Your task to perform on an android device: turn off airplane mode Image 0: 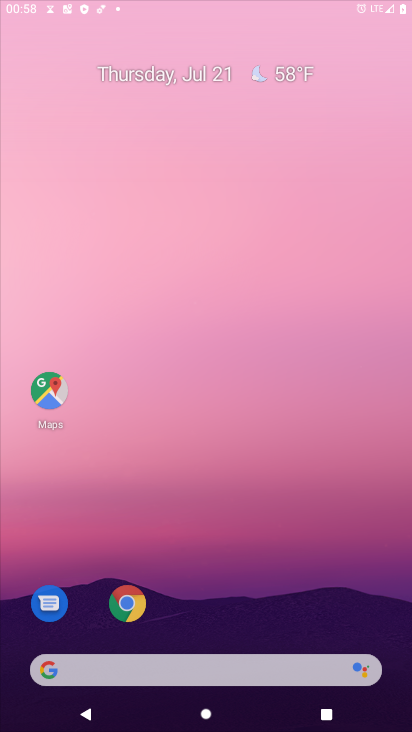
Step 0: press home button
Your task to perform on an android device: turn off airplane mode Image 1: 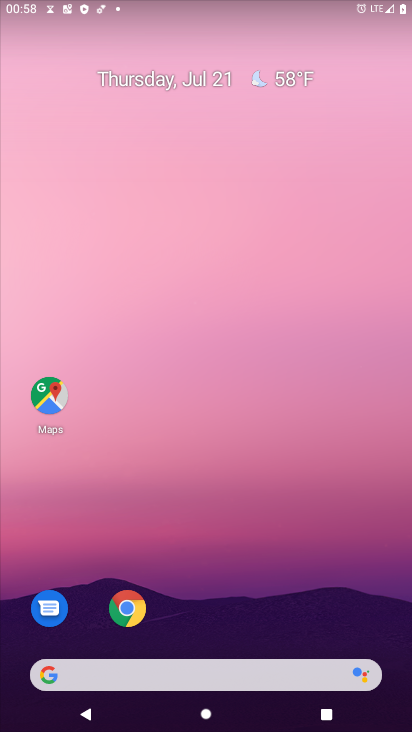
Step 1: drag from (228, 634) to (252, 85)
Your task to perform on an android device: turn off airplane mode Image 2: 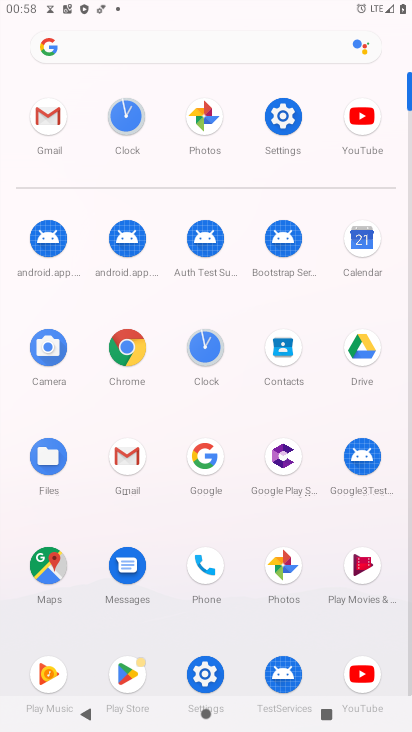
Step 2: click (280, 110)
Your task to perform on an android device: turn off airplane mode Image 3: 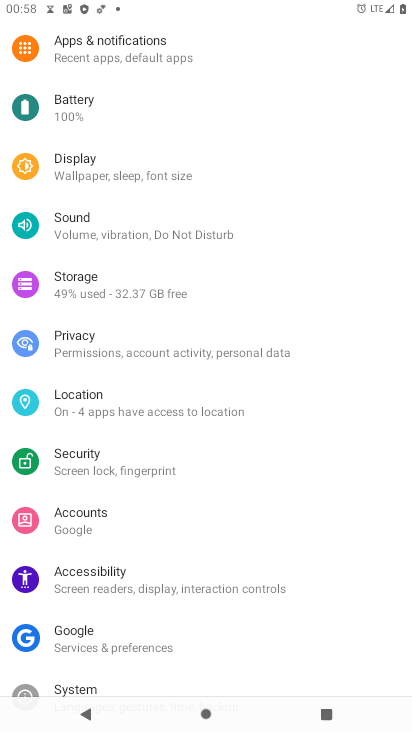
Step 3: task complete